Your task to perform on an android device: Open my contact list Image 0: 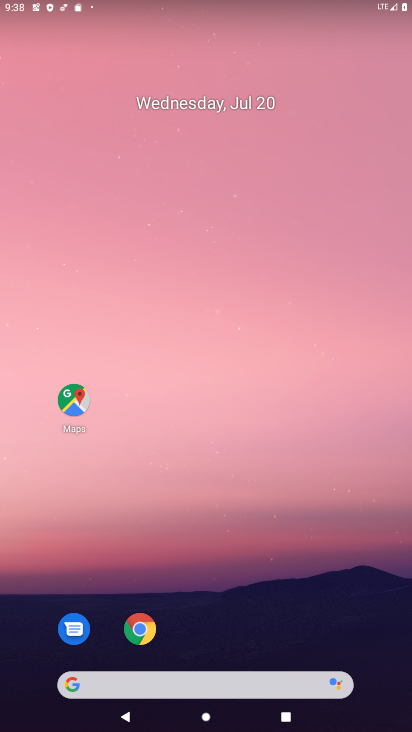
Step 0: press home button
Your task to perform on an android device: Open my contact list Image 1: 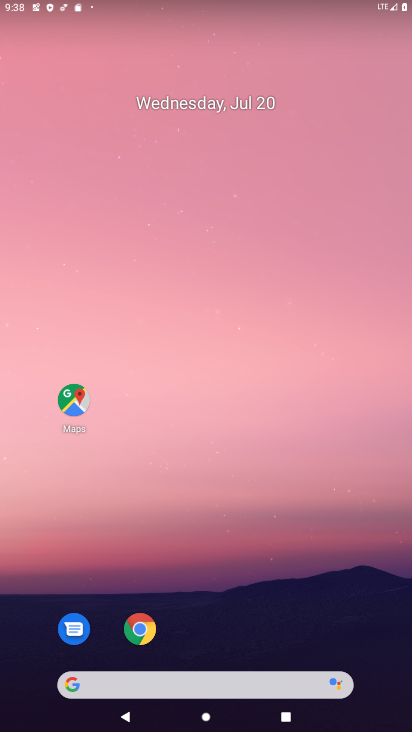
Step 1: drag from (239, 623) to (245, 122)
Your task to perform on an android device: Open my contact list Image 2: 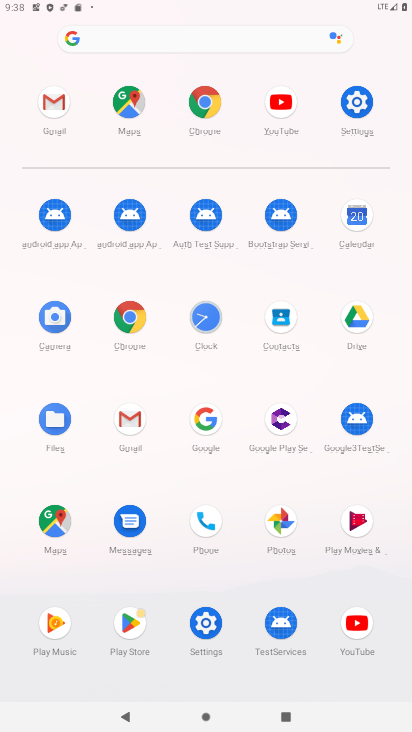
Step 2: click (274, 318)
Your task to perform on an android device: Open my contact list Image 3: 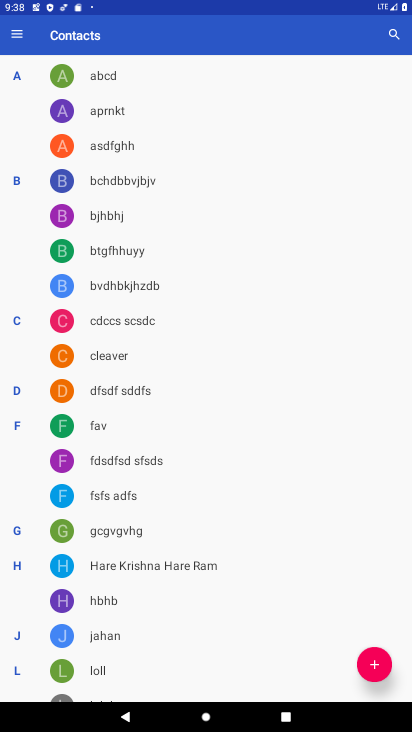
Step 3: task complete